Your task to perform on an android device: When is my next meeting? Image 0: 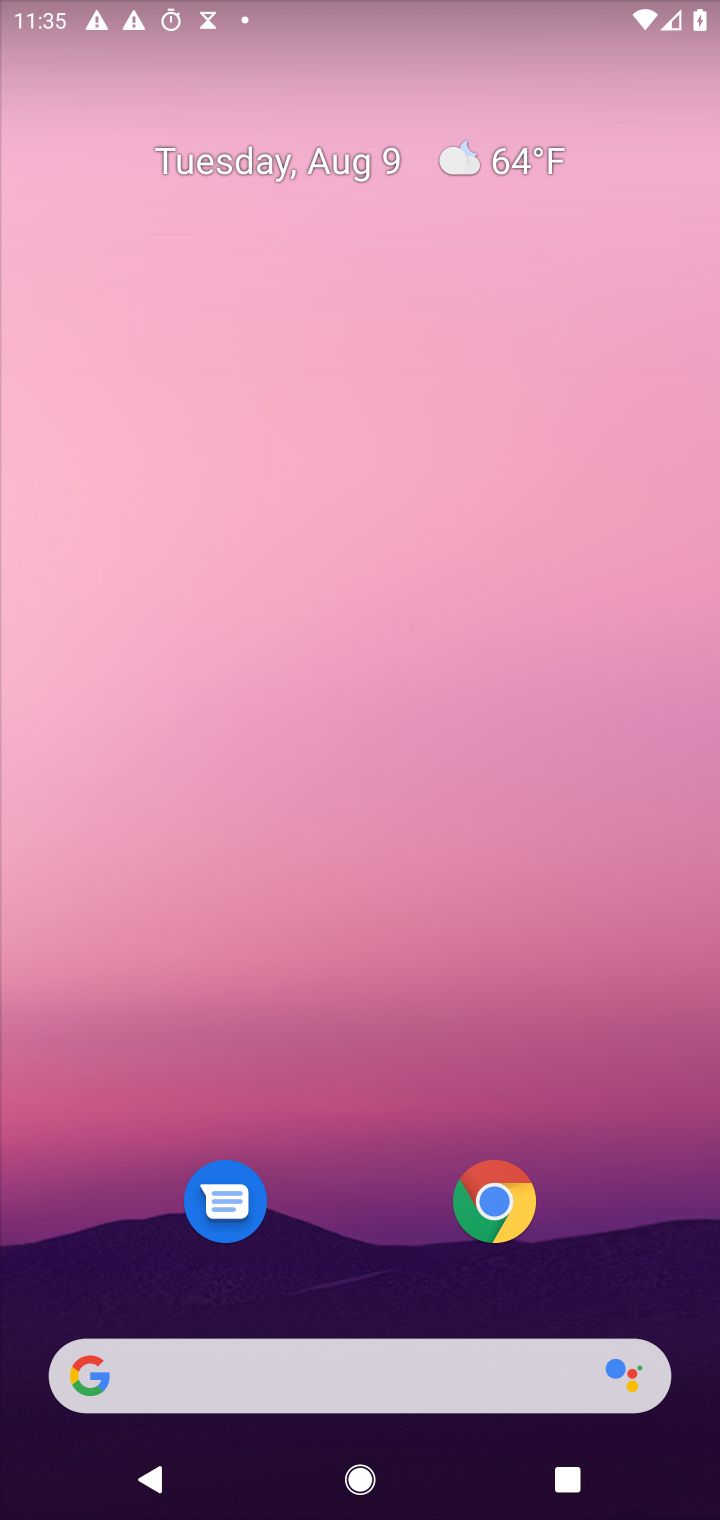
Step 0: press home button
Your task to perform on an android device: When is my next meeting? Image 1: 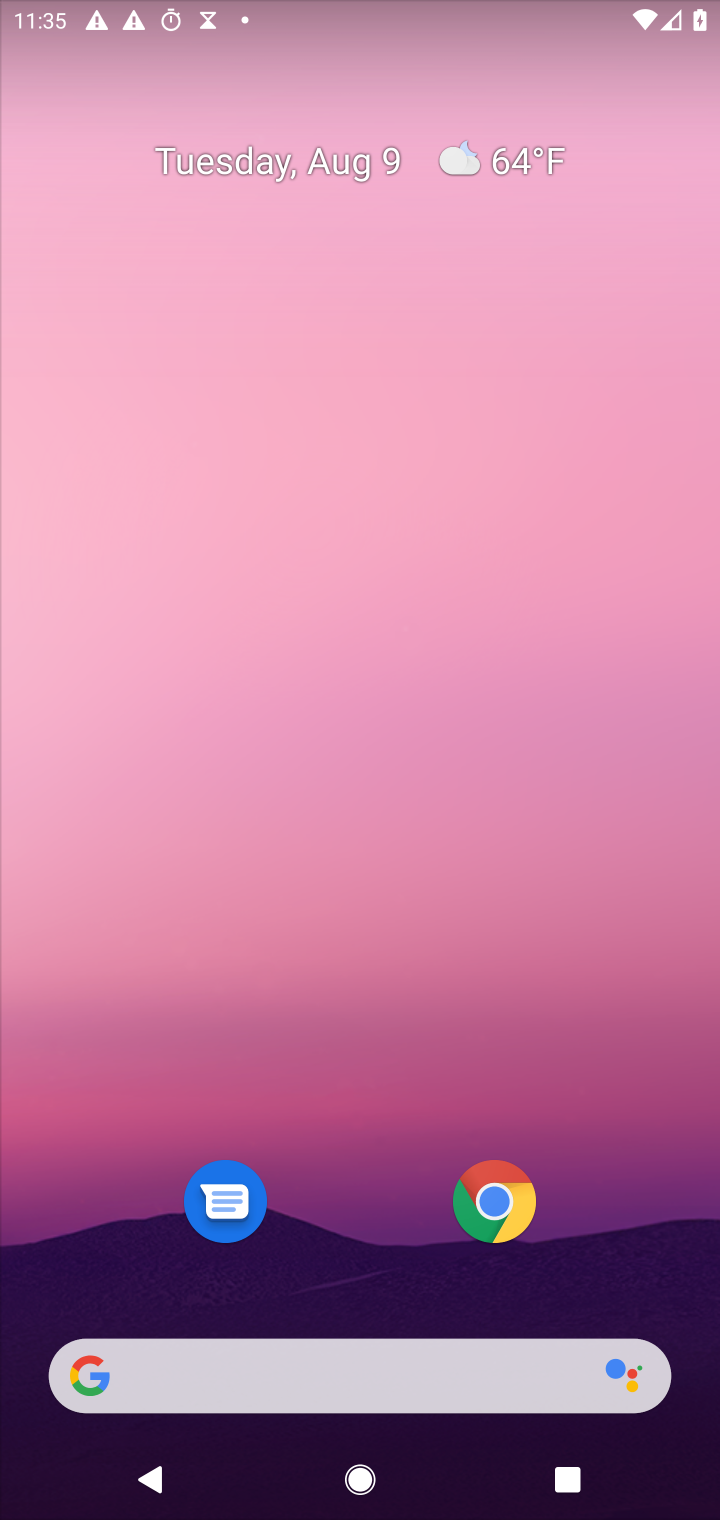
Step 1: drag from (357, 1101) to (627, 4)
Your task to perform on an android device: When is my next meeting? Image 2: 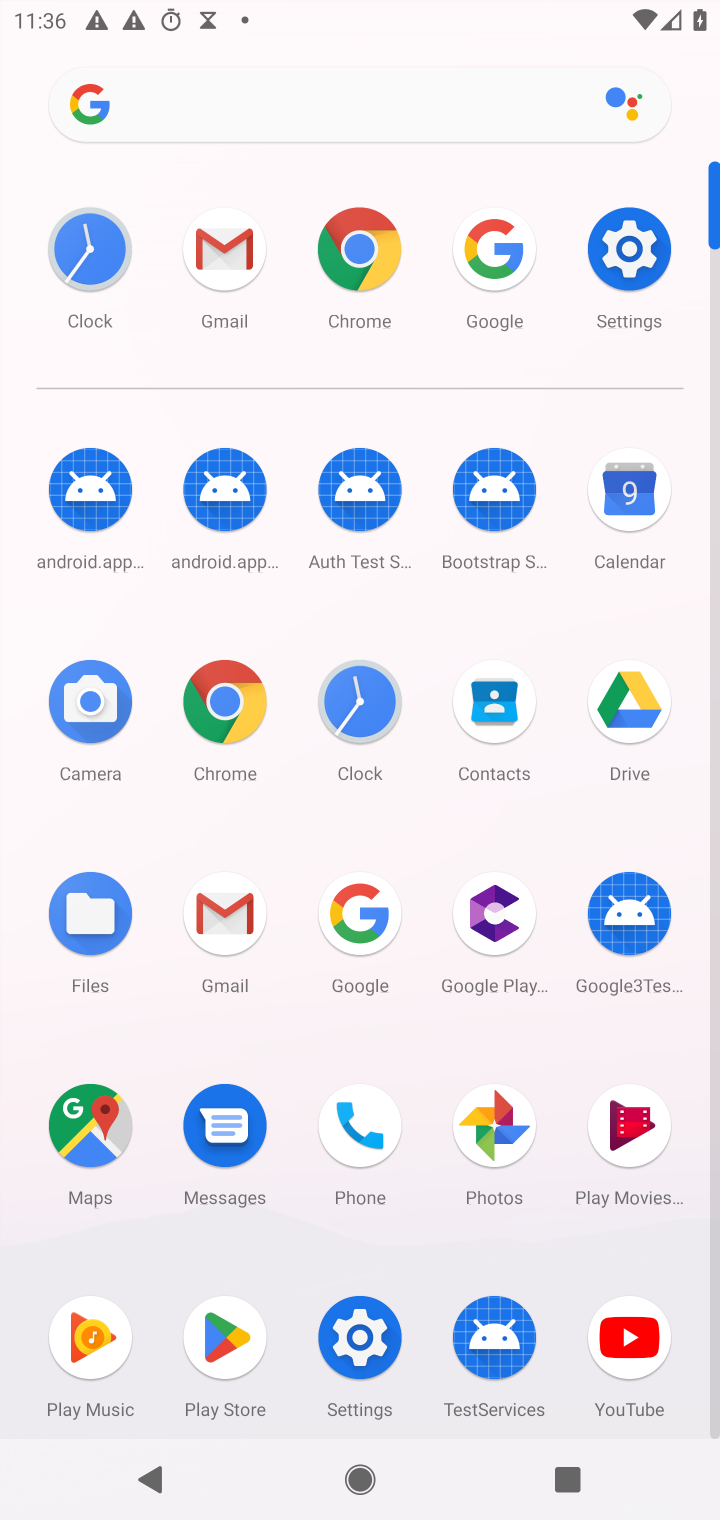
Step 2: click (618, 490)
Your task to perform on an android device: When is my next meeting? Image 3: 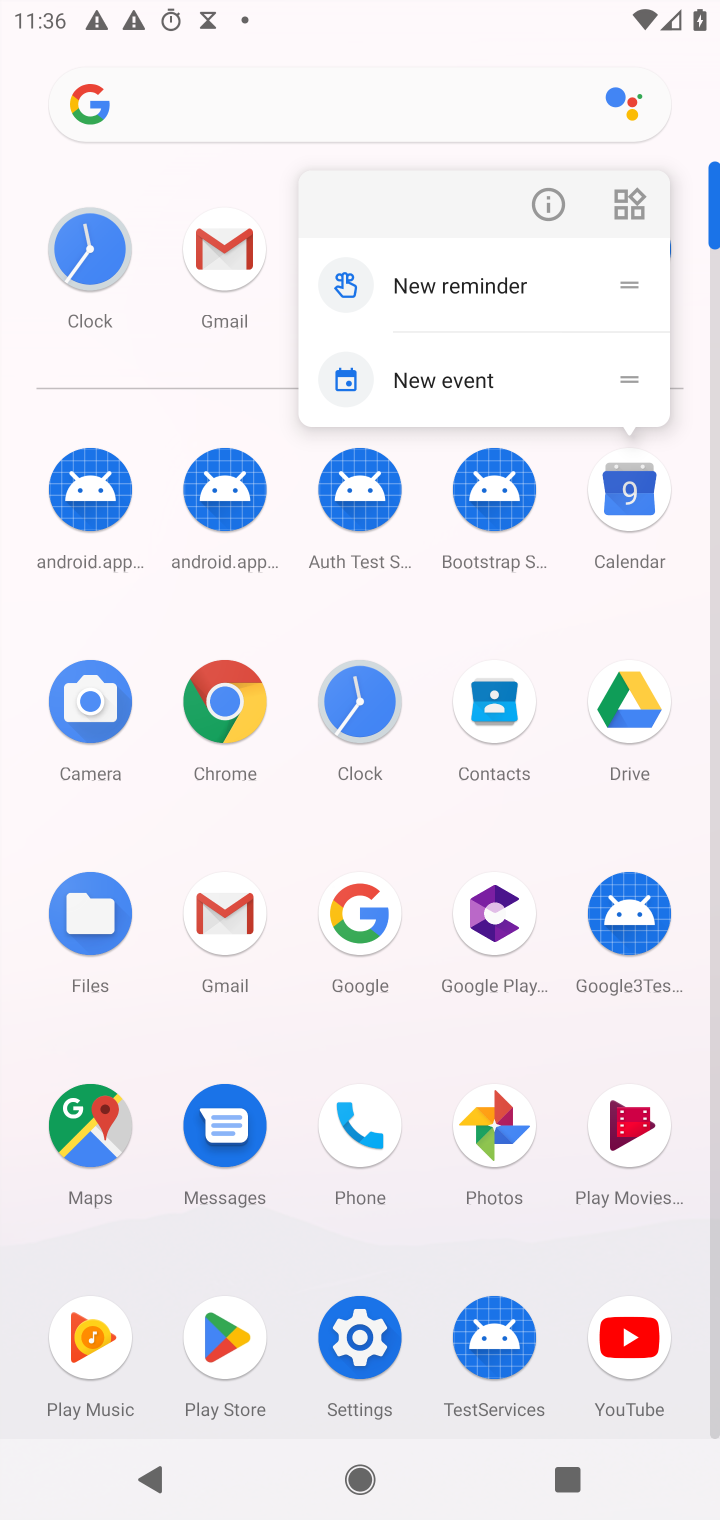
Step 3: click (632, 498)
Your task to perform on an android device: When is my next meeting? Image 4: 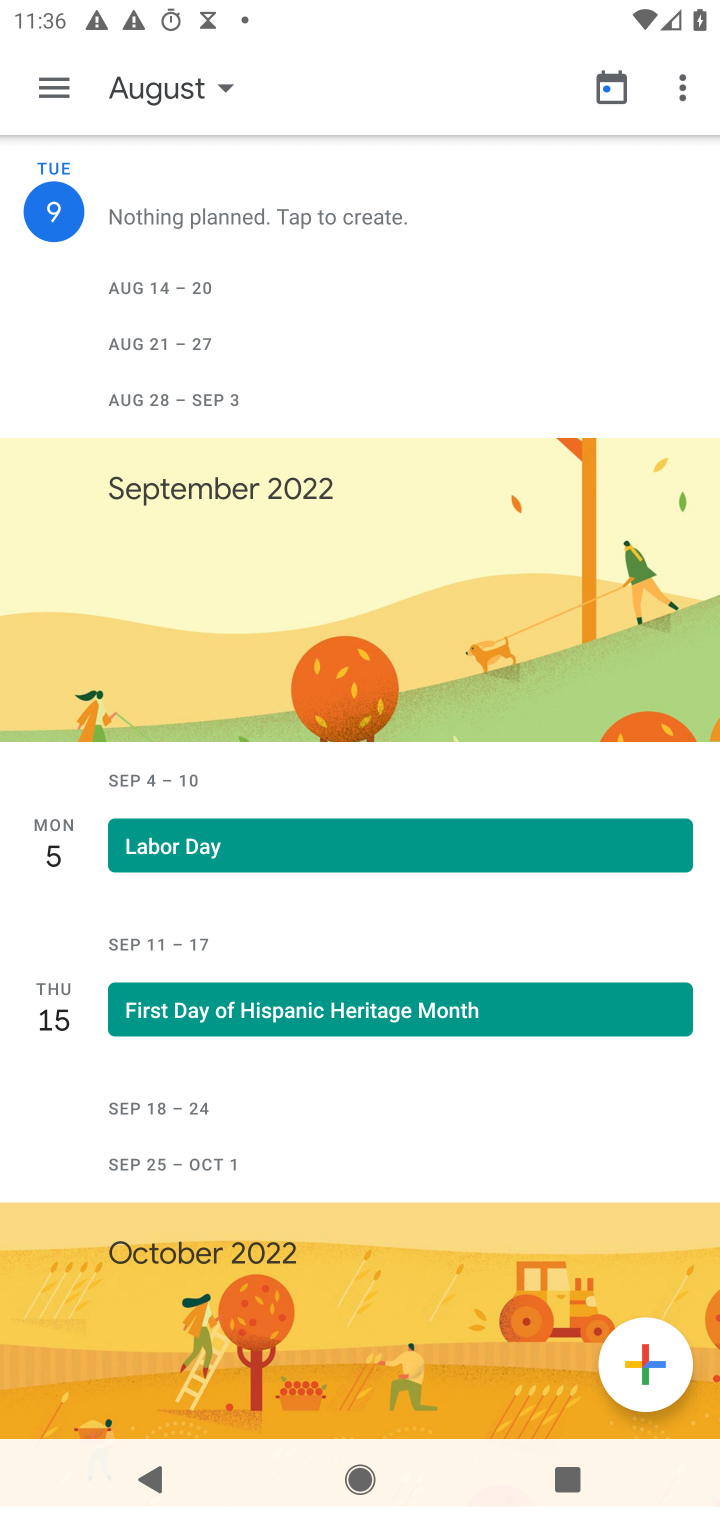
Step 4: click (54, 79)
Your task to perform on an android device: When is my next meeting? Image 5: 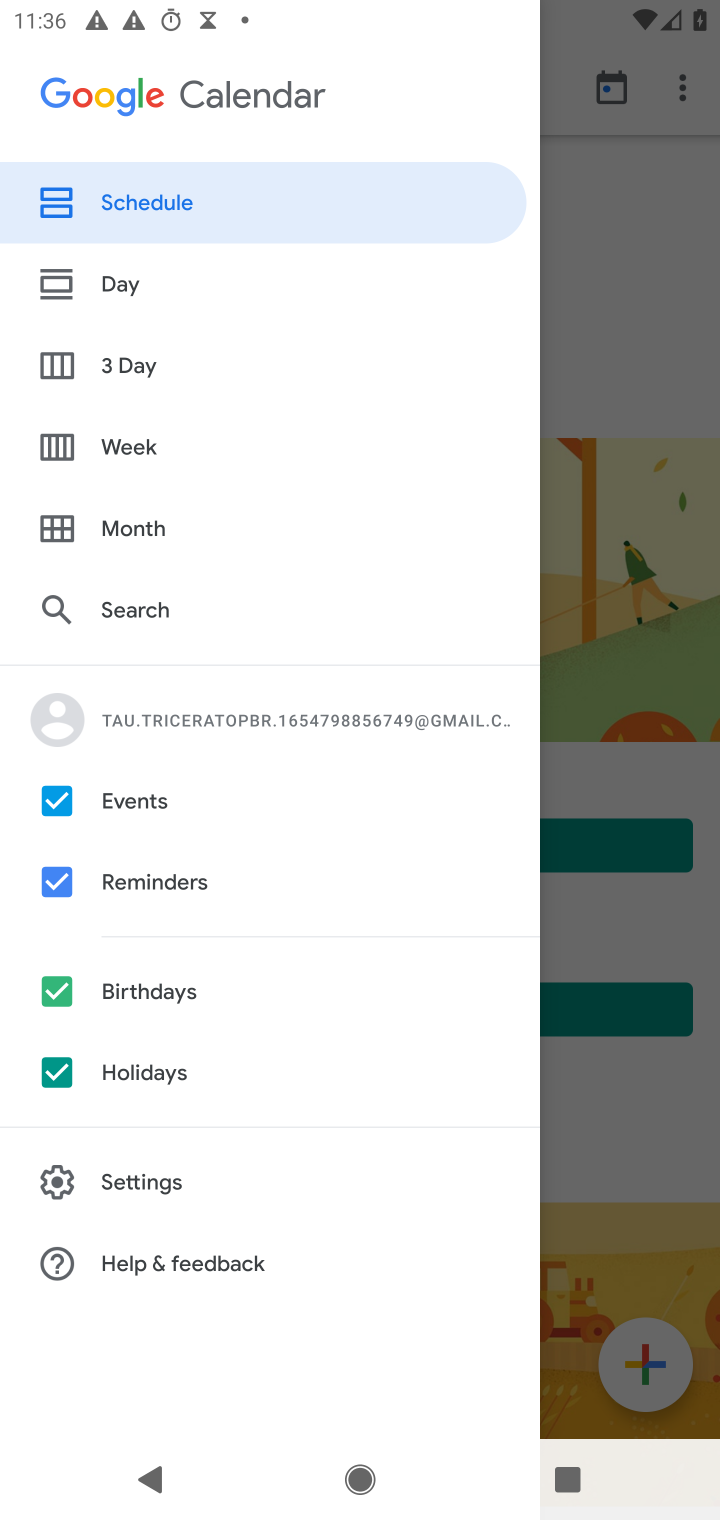
Step 5: click (151, 182)
Your task to perform on an android device: When is my next meeting? Image 6: 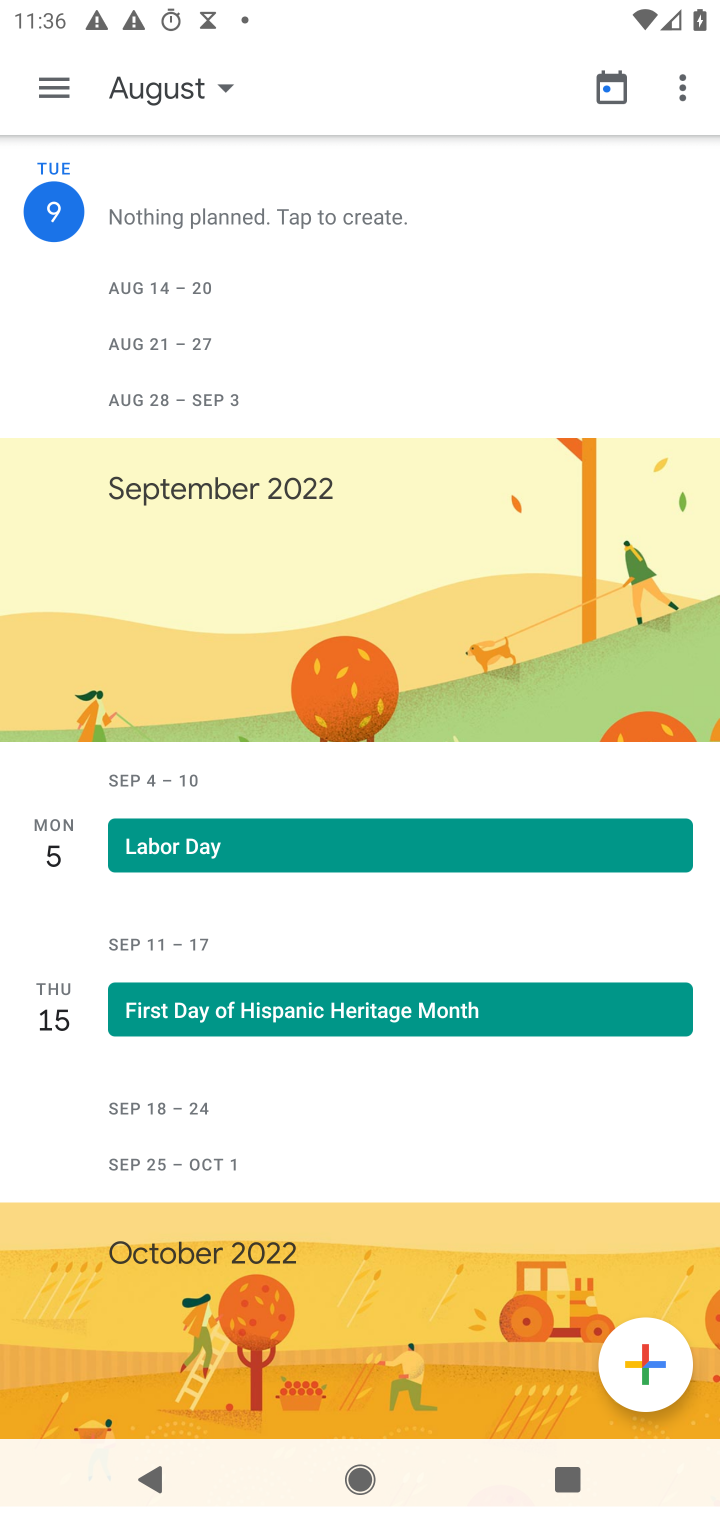
Step 6: task complete